Your task to perform on an android device: check google app version Image 0: 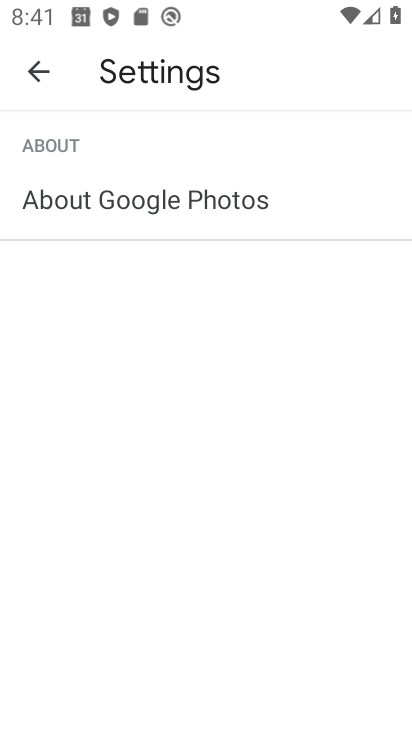
Step 0: press home button
Your task to perform on an android device: check google app version Image 1: 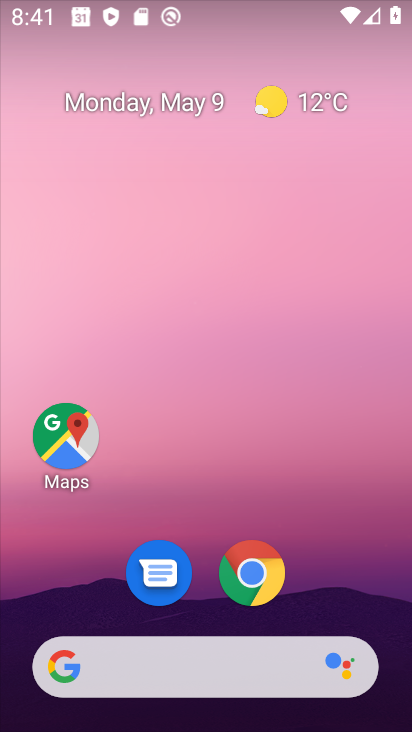
Step 1: drag from (291, 596) to (175, 160)
Your task to perform on an android device: check google app version Image 2: 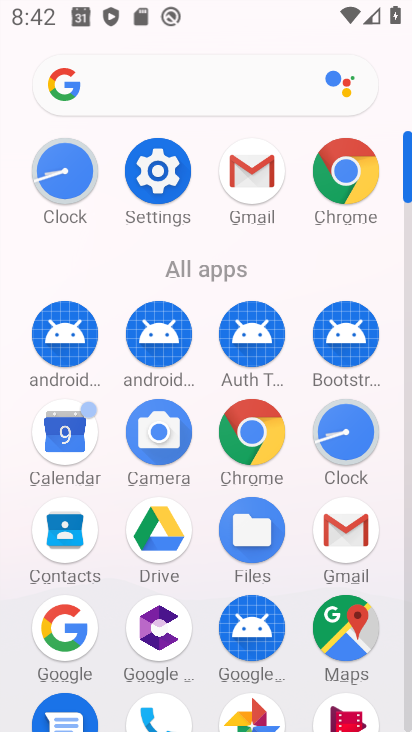
Step 2: click (85, 642)
Your task to perform on an android device: check google app version Image 3: 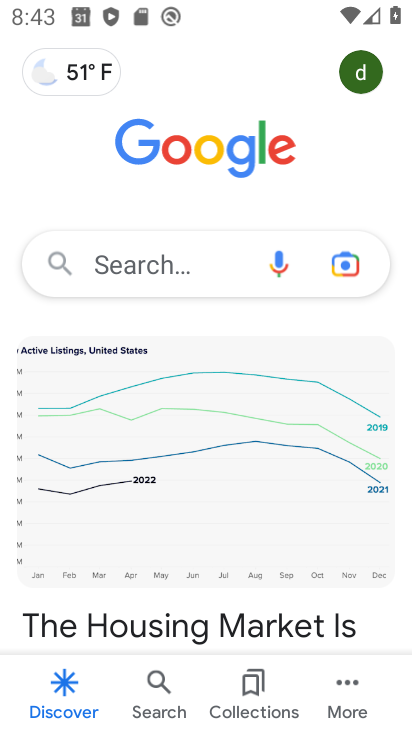
Step 3: click (337, 682)
Your task to perform on an android device: check google app version Image 4: 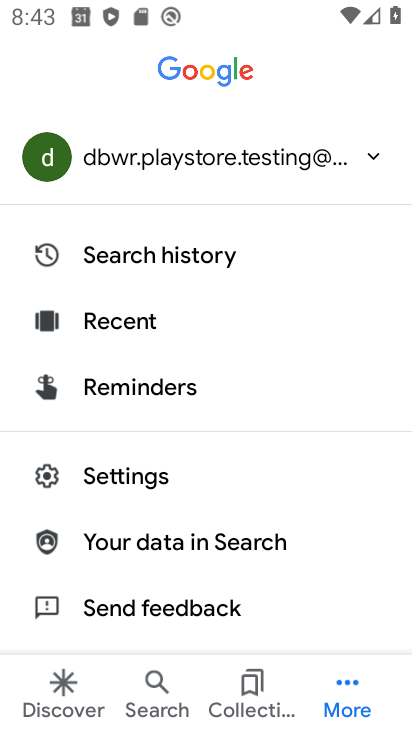
Step 4: click (177, 477)
Your task to perform on an android device: check google app version Image 5: 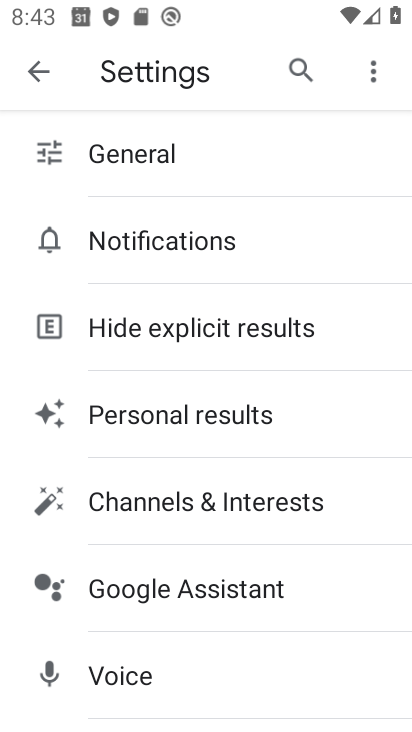
Step 5: drag from (158, 502) to (215, 264)
Your task to perform on an android device: check google app version Image 6: 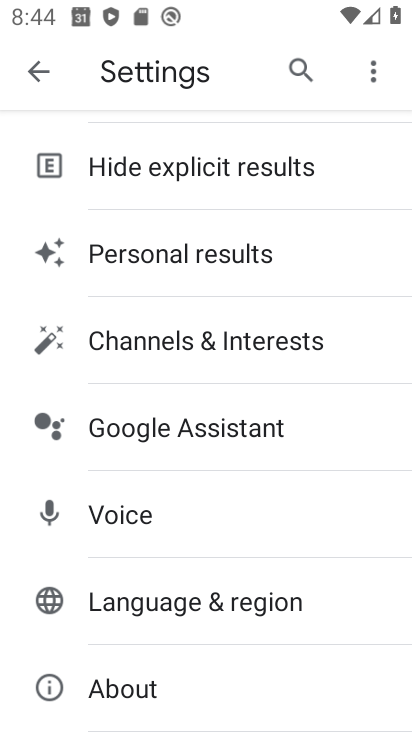
Step 6: click (155, 692)
Your task to perform on an android device: check google app version Image 7: 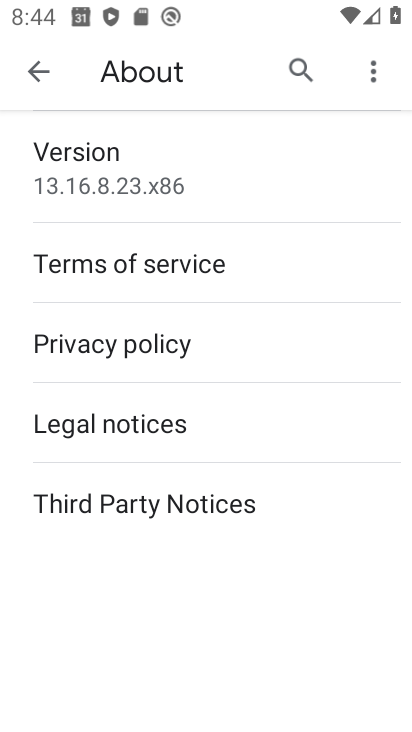
Step 7: task complete